Your task to perform on an android device: Do I have any events today? Image 0: 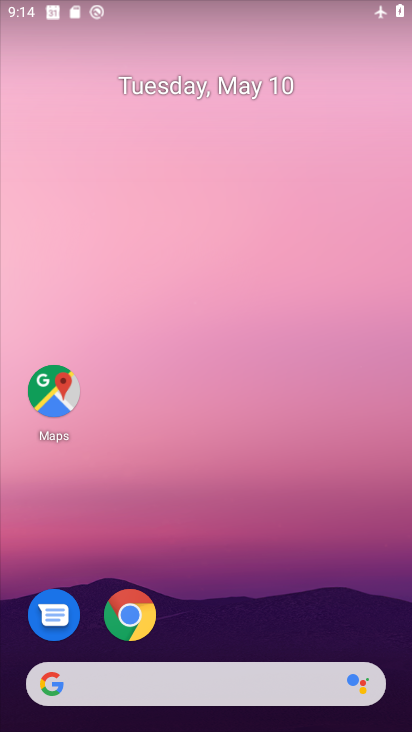
Step 0: drag from (195, 614) to (223, 179)
Your task to perform on an android device: Do I have any events today? Image 1: 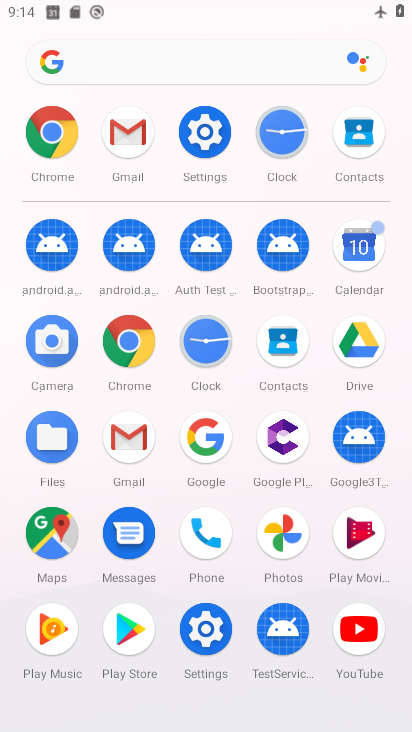
Step 1: click (358, 250)
Your task to perform on an android device: Do I have any events today? Image 2: 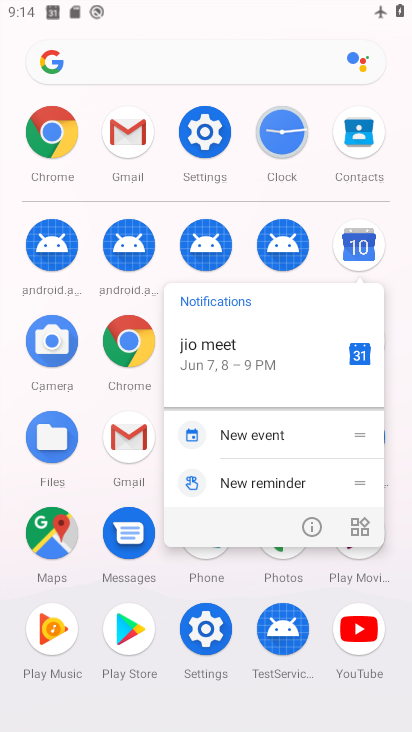
Step 2: click (302, 528)
Your task to perform on an android device: Do I have any events today? Image 3: 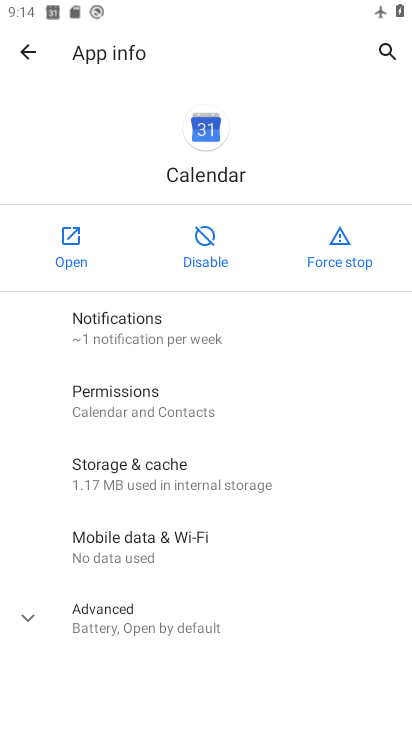
Step 3: click (91, 260)
Your task to perform on an android device: Do I have any events today? Image 4: 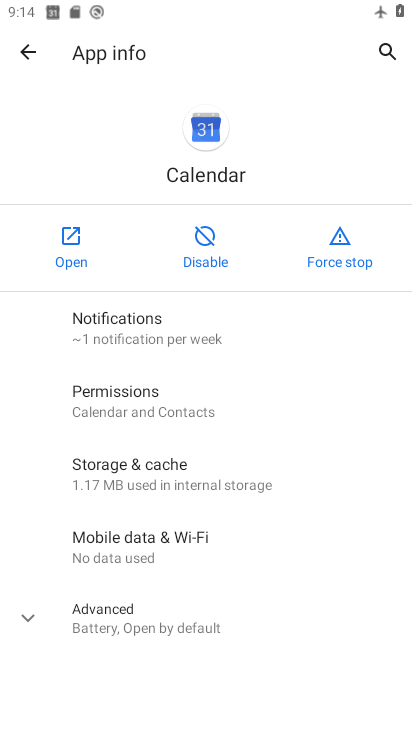
Step 4: click (91, 260)
Your task to perform on an android device: Do I have any events today? Image 5: 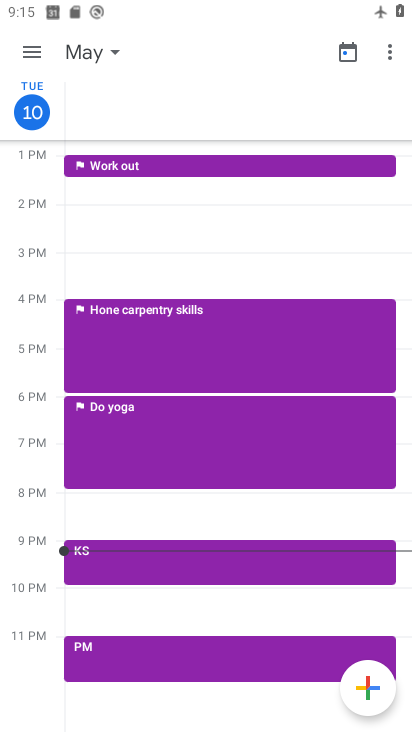
Step 5: click (97, 59)
Your task to perform on an android device: Do I have any events today? Image 6: 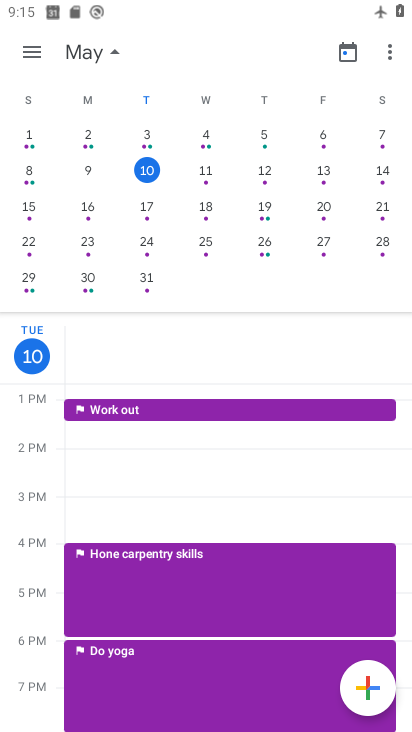
Step 6: click (150, 172)
Your task to perform on an android device: Do I have any events today? Image 7: 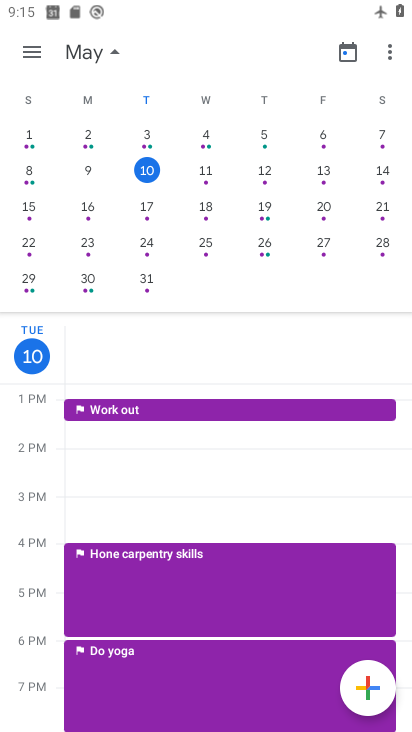
Step 7: task complete